Your task to perform on an android device: Show me productivity apps on the Play Store Image 0: 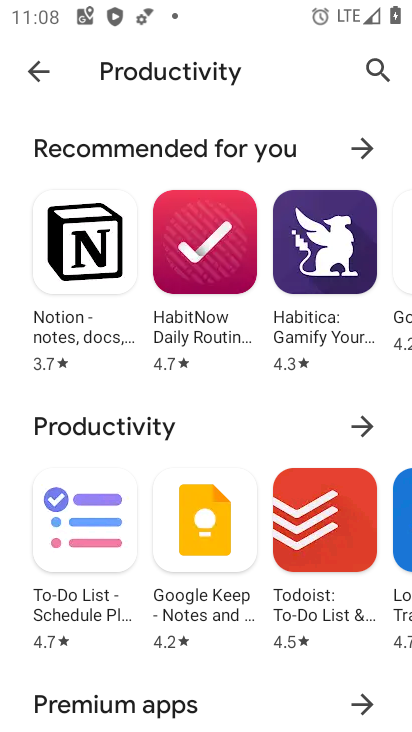
Step 0: task complete